Your task to perform on an android device: check android version Image 0: 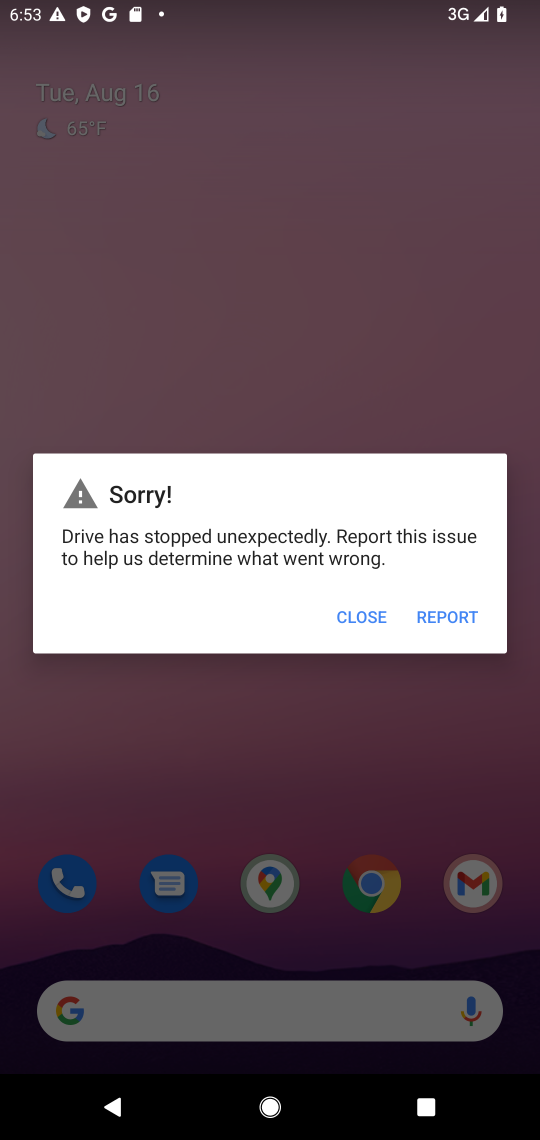
Step 0: press home button
Your task to perform on an android device: check android version Image 1: 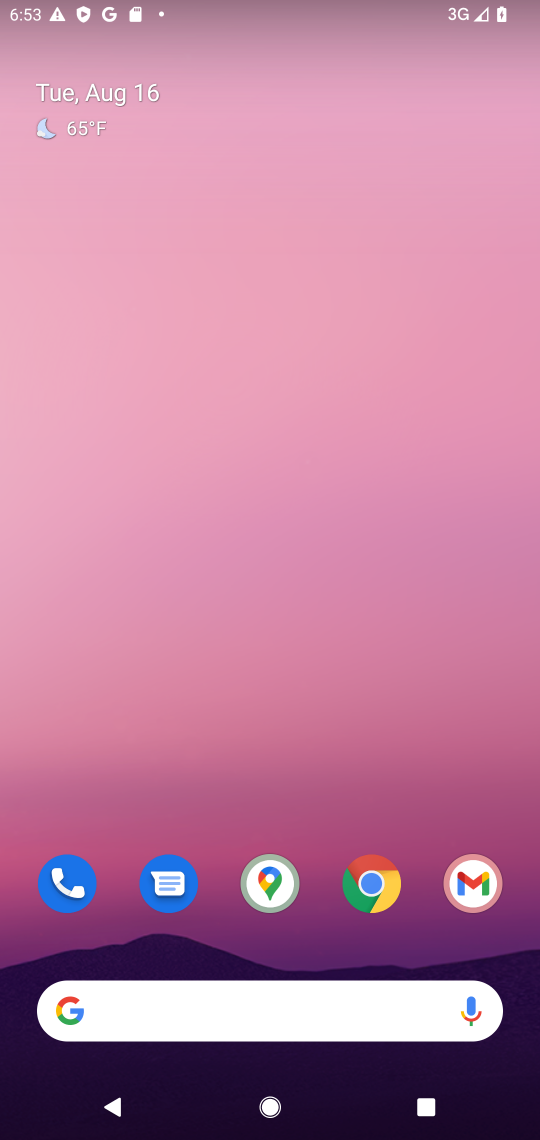
Step 1: drag from (188, 998) to (170, 196)
Your task to perform on an android device: check android version Image 2: 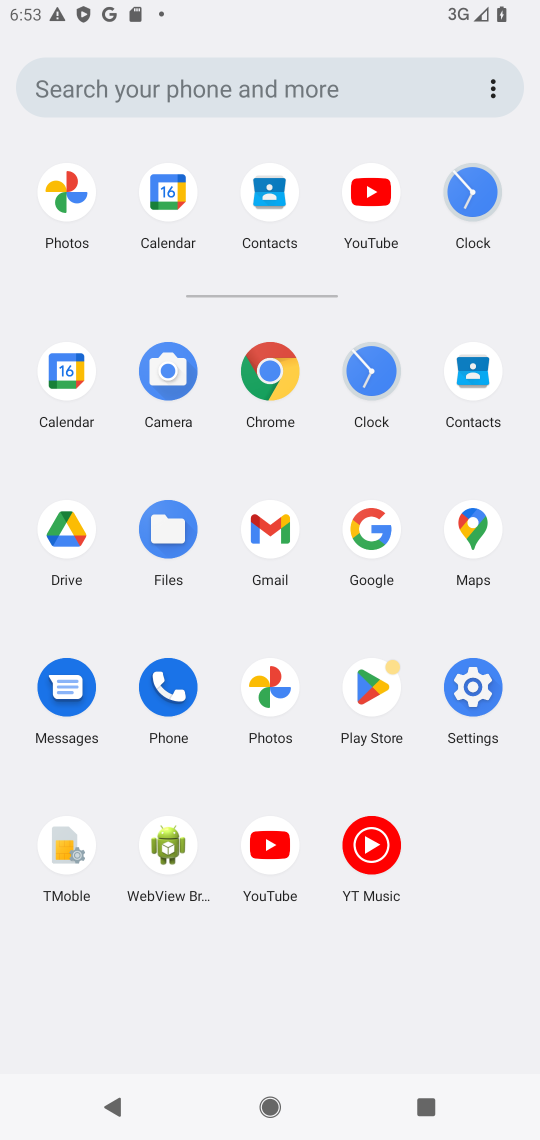
Step 2: click (471, 685)
Your task to perform on an android device: check android version Image 3: 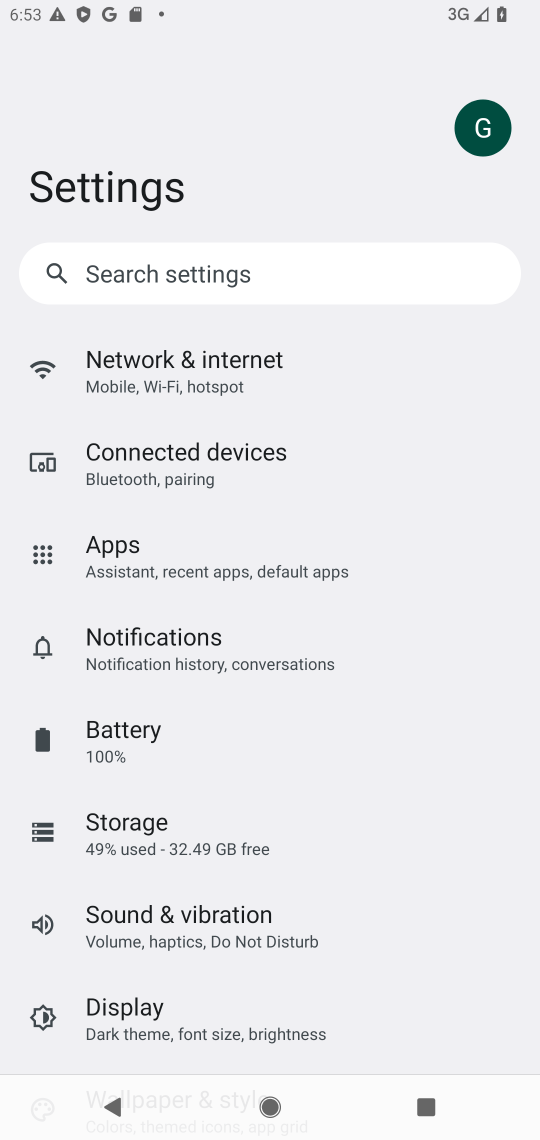
Step 3: drag from (167, 717) to (284, 561)
Your task to perform on an android device: check android version Image 4: 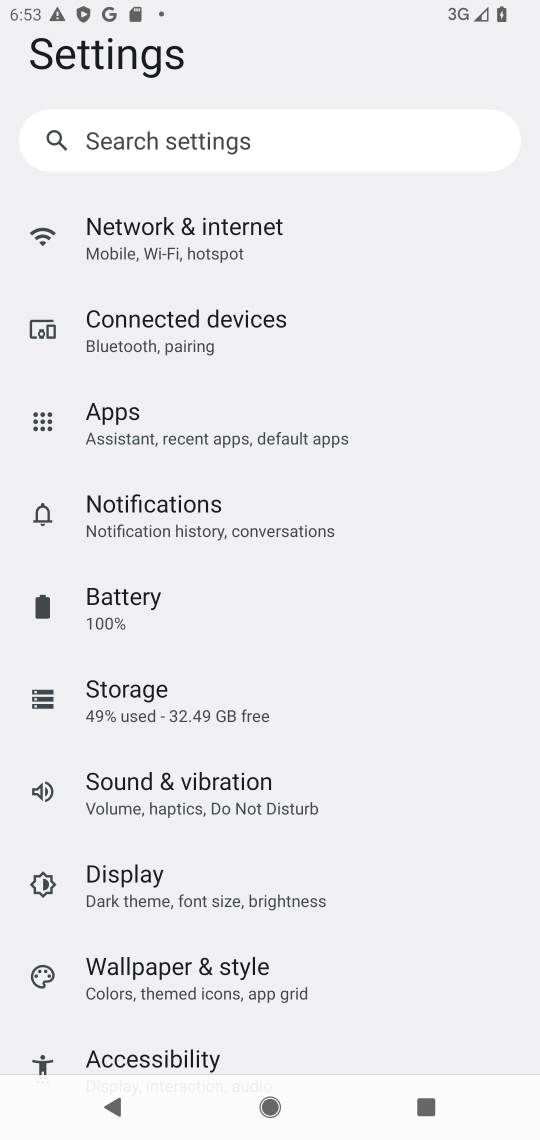
Step 4: drag from (194, 829) to (290, 669)
Your task to perform on an android device: check android version Image 5: 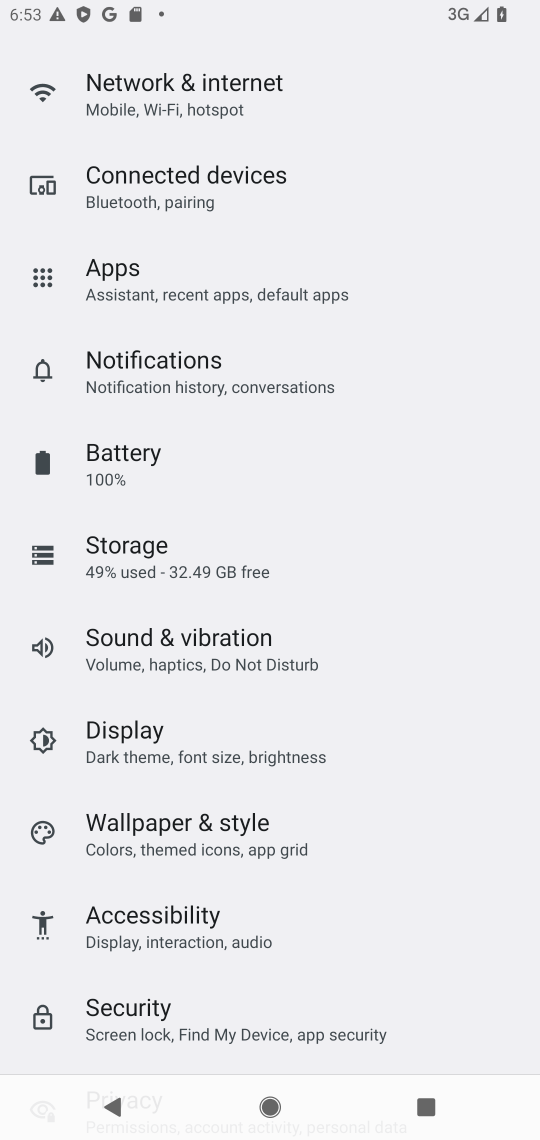
Step 5: drag from (180, 794) to (299, 649)
Your task to perform on an android device: check android version Image 6: 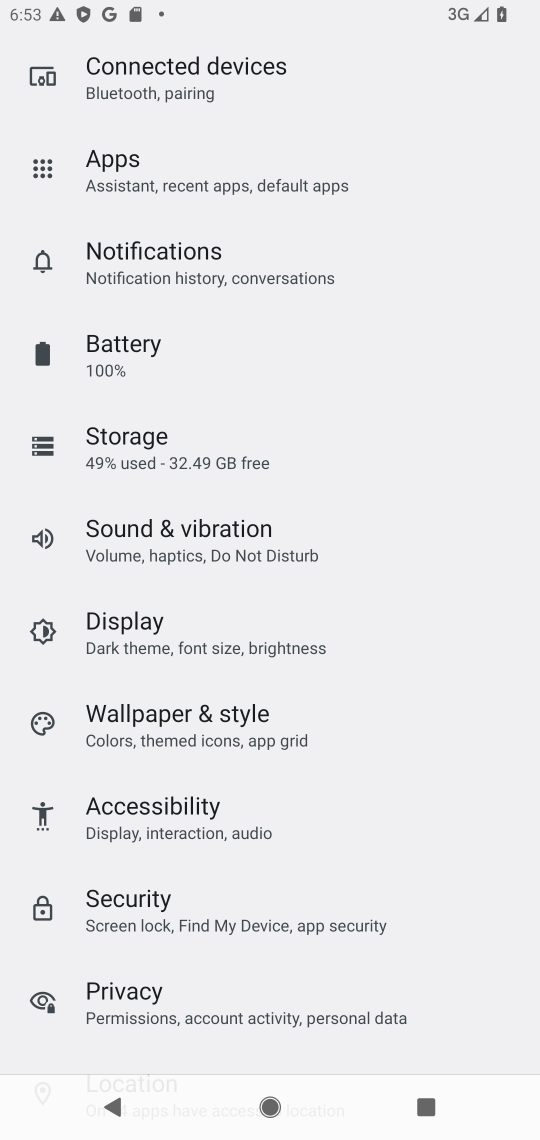
Step 6: drag from (177, 843) to (267, 715)
Your task to perform on an android device: check android version Image 7: 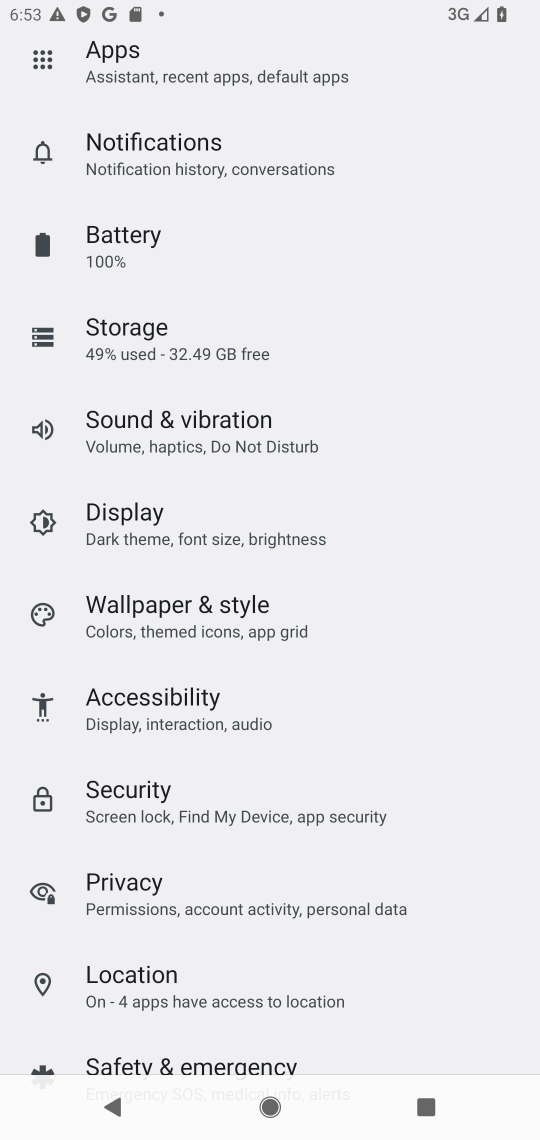
Step 7: drag from (144, 860) to (259, 727)
Your task to perform on an android device: check android version Image 8: 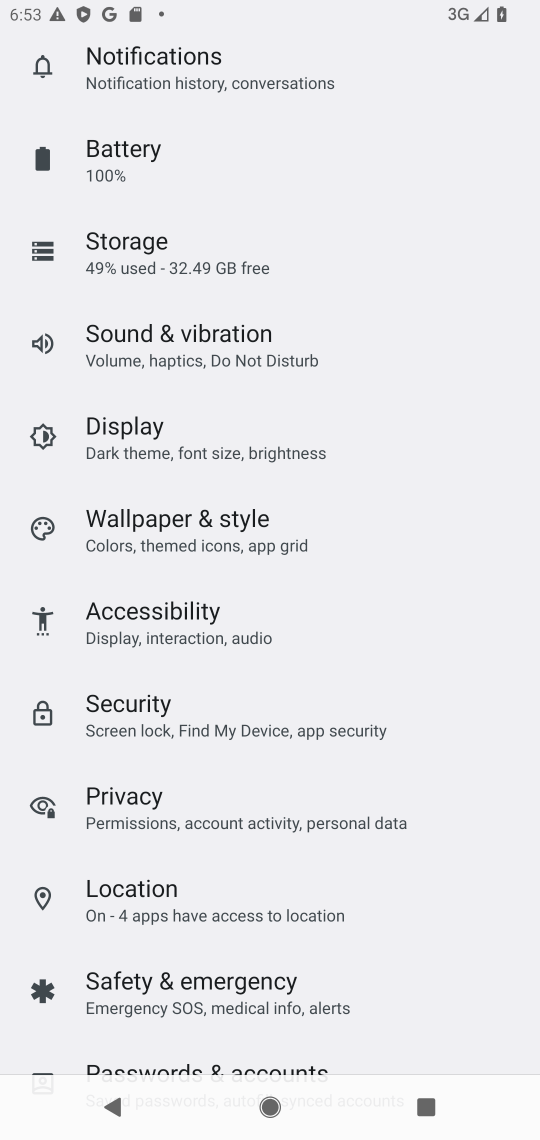
Step 8: drag from (132, 862) to (241, 694)
Your task to perform on an android device: check android version Image 9: 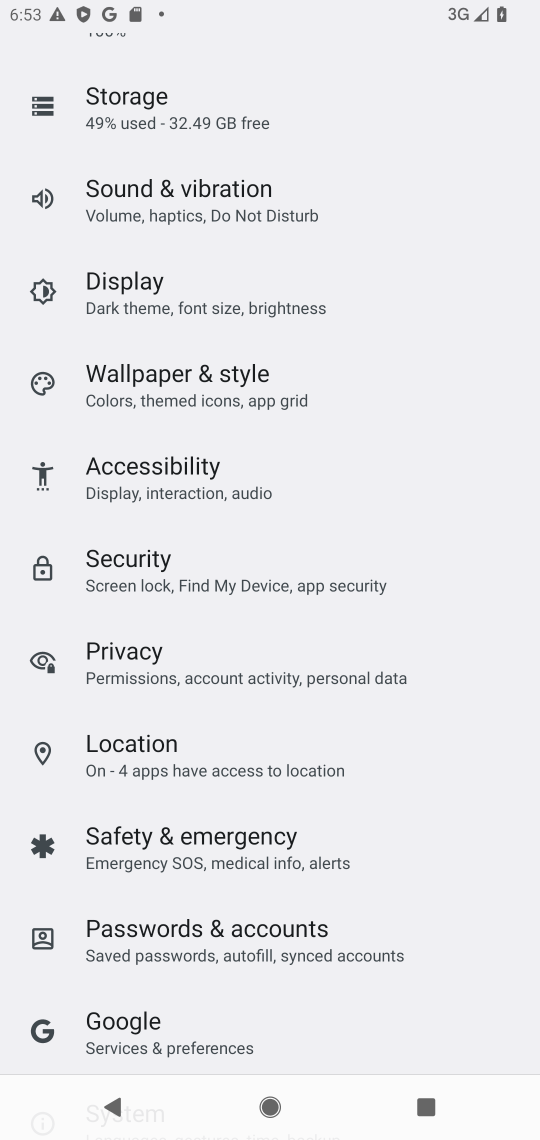
Step 9: drag from (121, 882) to (246, 709)
Your task to perform on an android device: check android version Image 10: 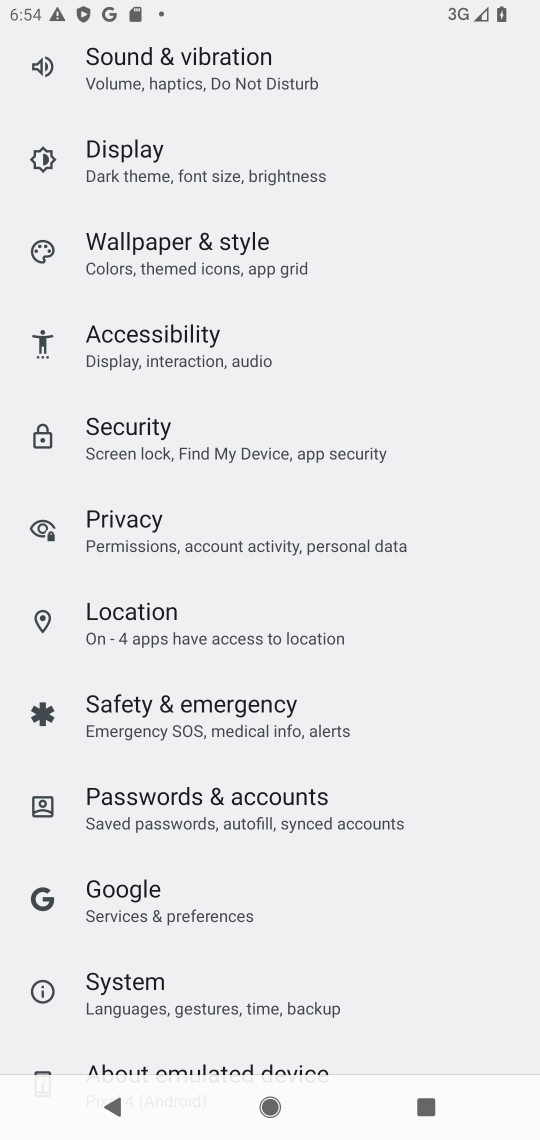
Step 10: drag from (142, 877) to (292, 683)
Your task to perform on an android device: check android version Image 11: 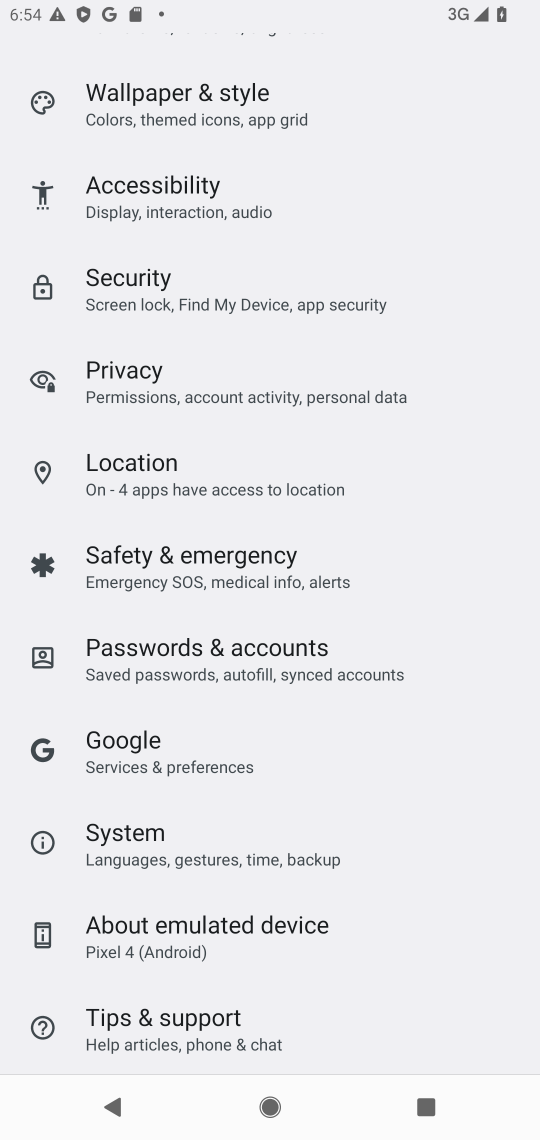
Step 11: click (195, 910)
Your task to perform on an android device: check android version Image 12: 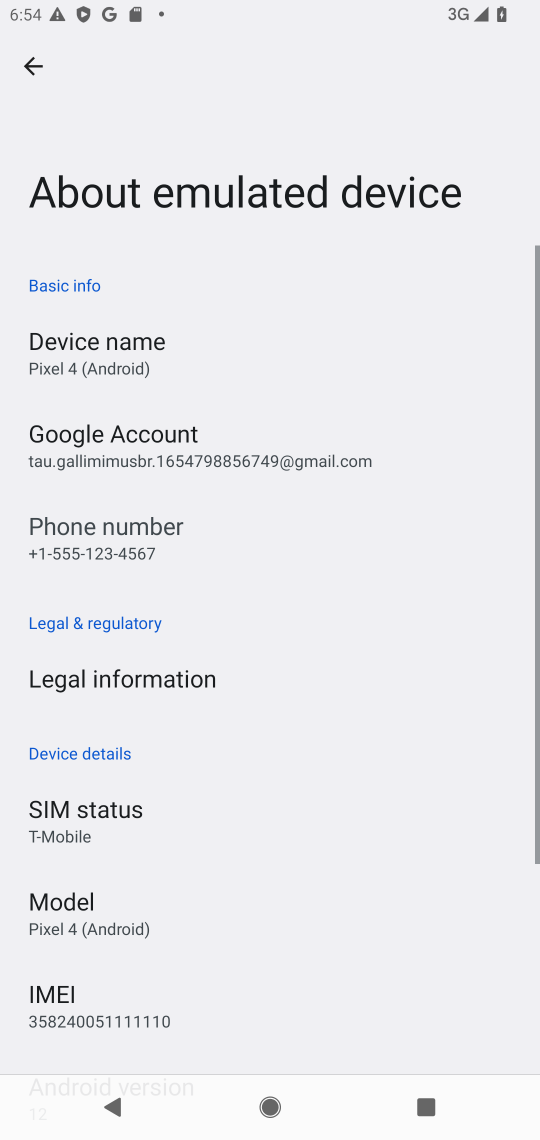
Step 12: drag from (117, 900) to (209, 710)
Your task to perform on an android device: check android version Image 13: 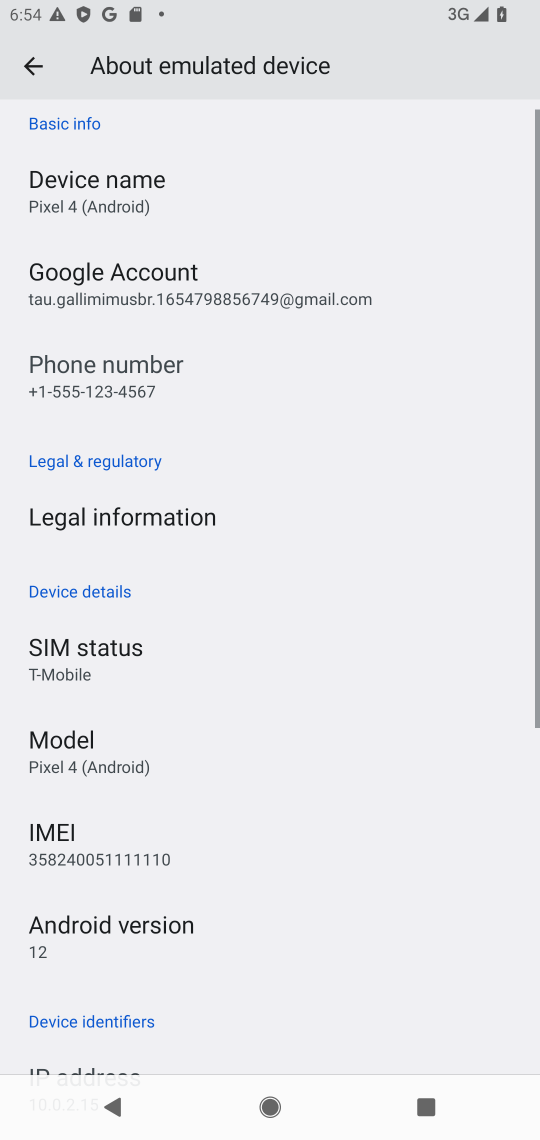
Step 13: click (159, 933)
Your task to perform on an android device: check android version Image 14: 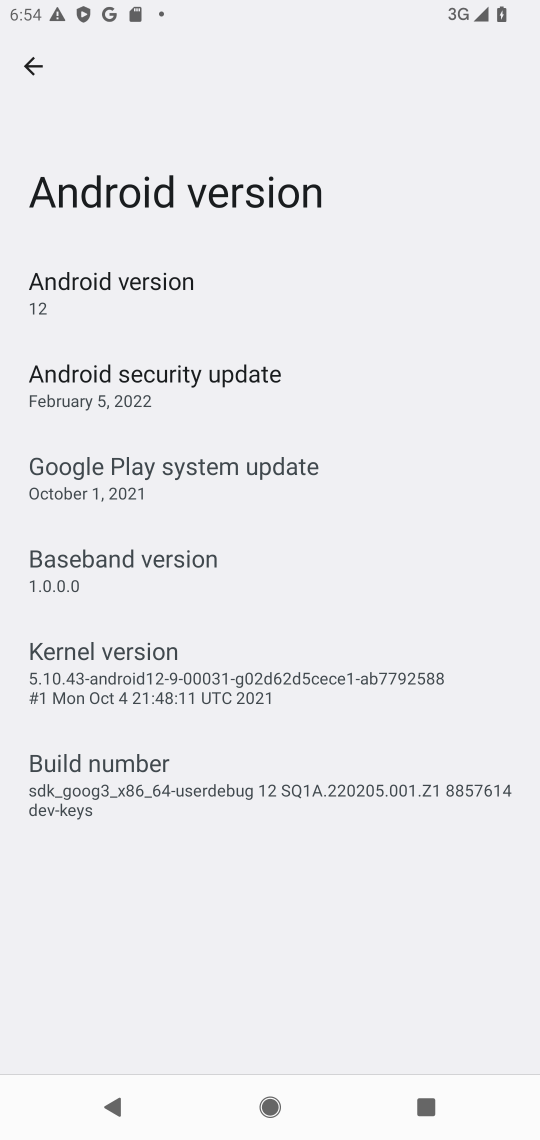
Step 14: task complete